Your task to perform on an android device: check android version Image 0: 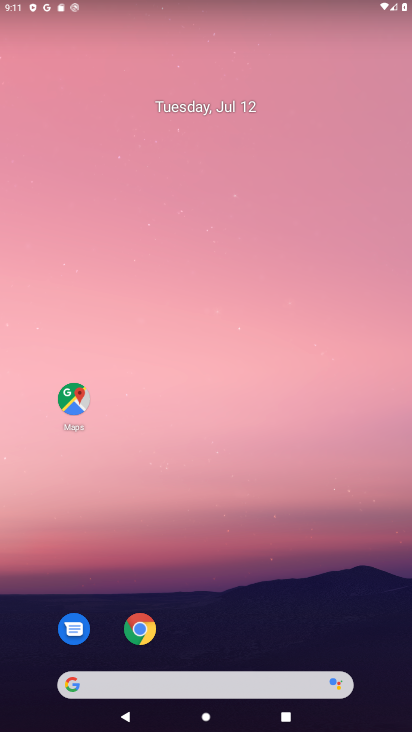
Step 0: drag from (259, 636) to (227, 74)
Your task to perform on an android device: check android version Image 1: 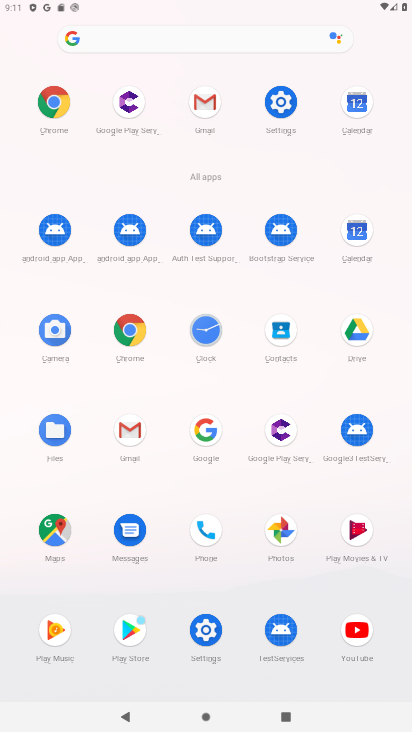
Step 1: click (272, 101)
Your task to perform on an android device: check android version Image 2: 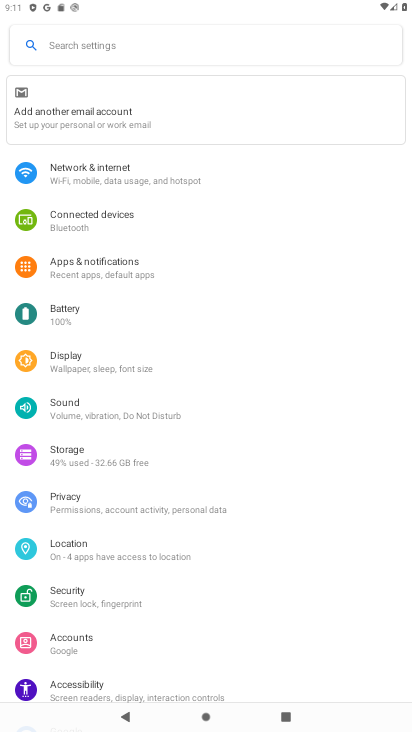
Step 2: drag from (224, 659) to (178, 288)
Your task to perform on an android device: check android version Image 3: 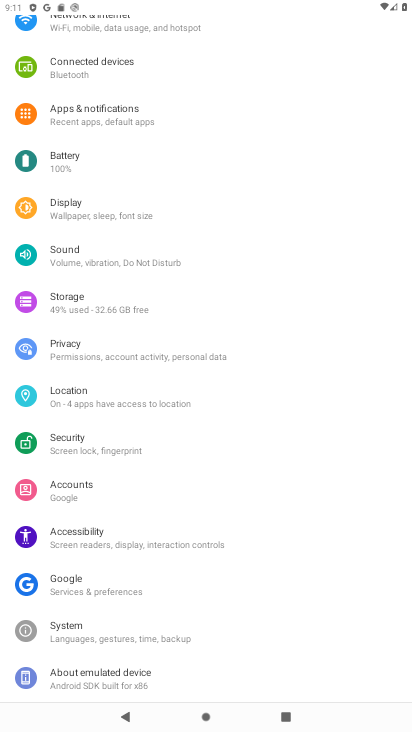
Step 3: click (213, 692)
Your task to perform on an android device: check android version Image 4: 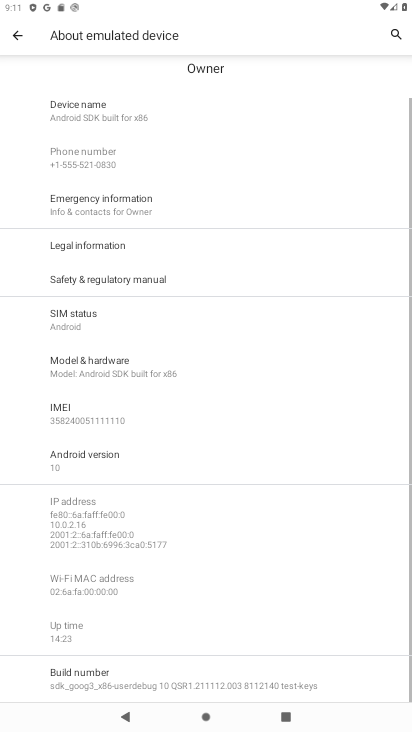
Step 4: click (168, 469)
Your task to perform on an android device: check android version Image 5: 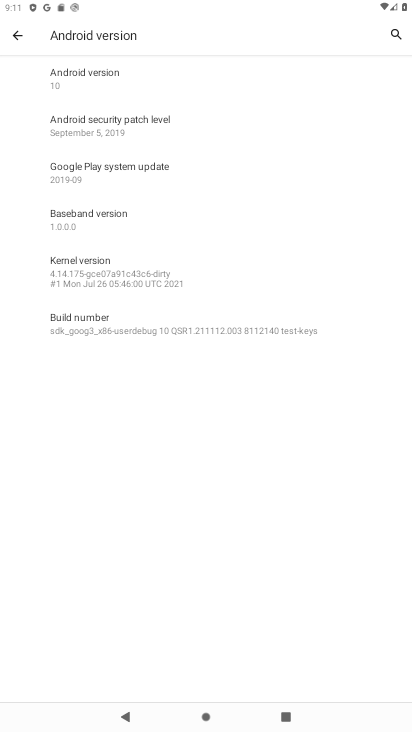
Step 5: click (173, 74)
Your task to perform on an android device: check android version Image 6: 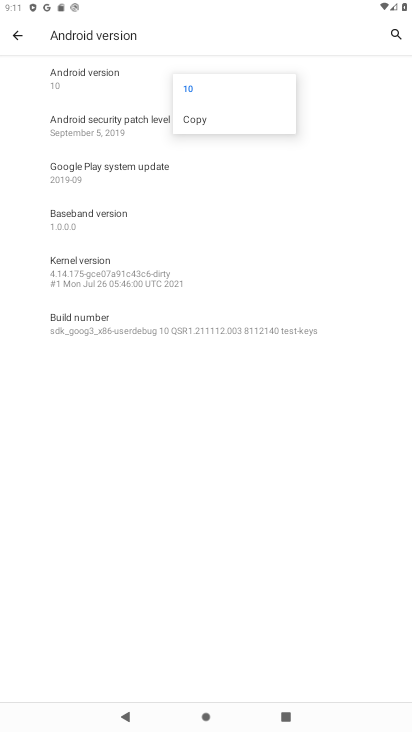
Step 6: task complete